Your task to perform on an android device: Do I have any events today? Image 0: 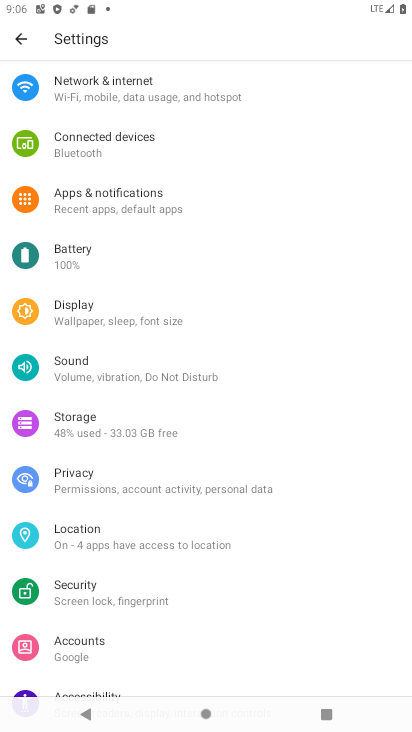
Step 0: press home button
Your task to perform on an android device: Do I have any events today? Image 1: 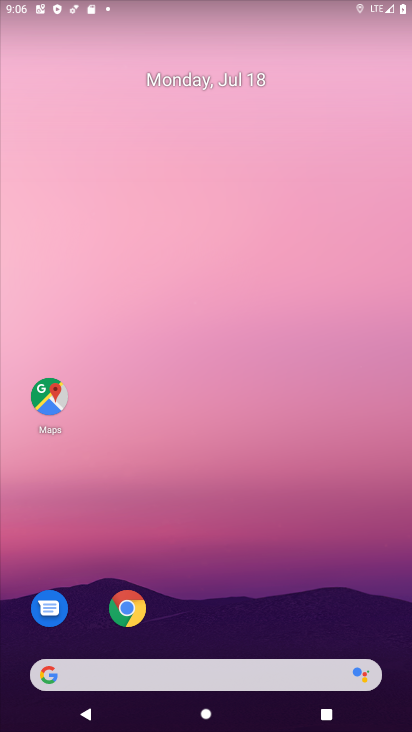
Step 1: drag from (43, 639) to (232, 65)
Your task to perform on an android device: Do I have any events today? Image 2: 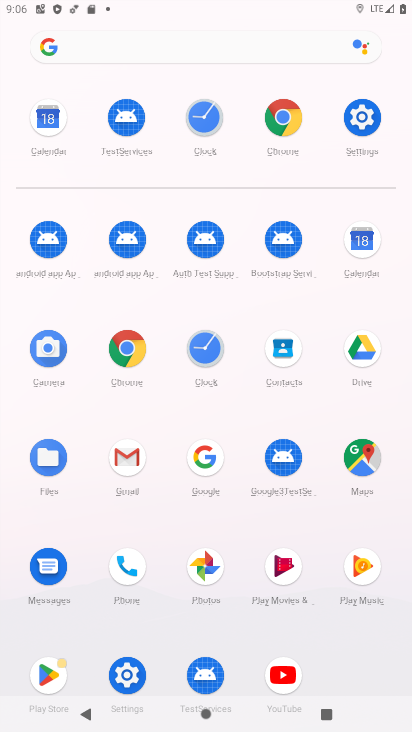
Step 2: click (359, 247)
Your task to perform on an android device: Do I have any events today? Image 3: 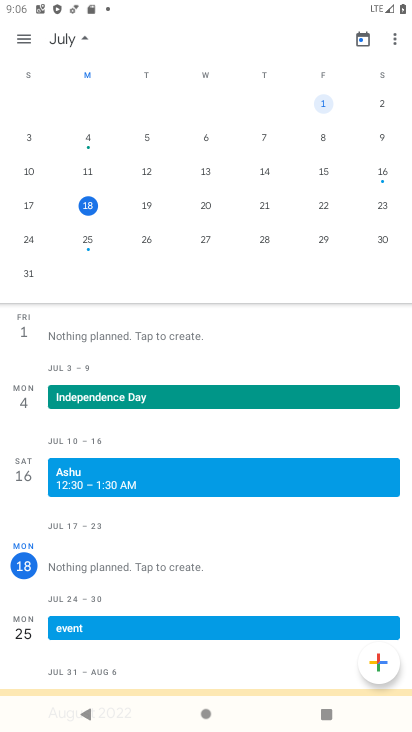
Step 3: task complete